Your task to perform on an android device: turn on data saver in the chrome app Image 0: 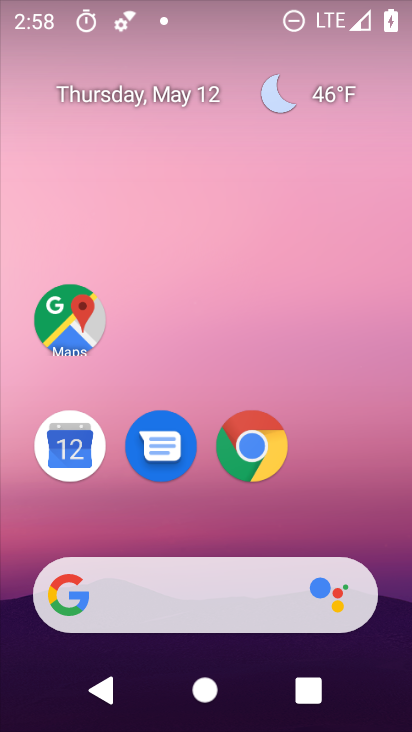
Step 0: click (231, 461)
Your task to perform on an android device: turn on data saver in the chrome app Image 1: 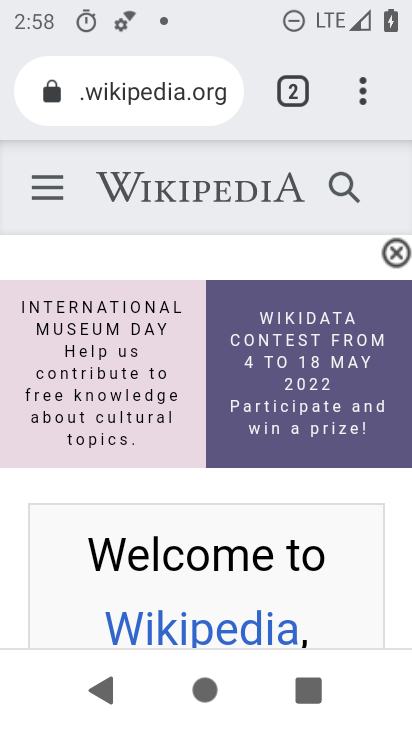
Step 1: drag from (375, 83) to (167, 471)
Your task to perform on an android device: turn on data saver in the chrome app Image 2: 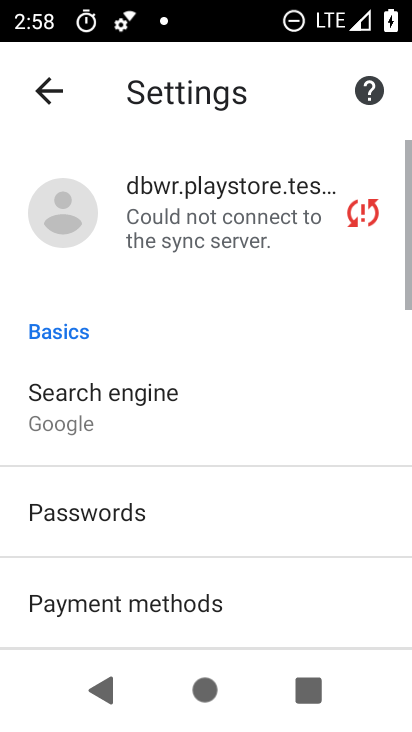
Step 2: drag from (199, 466) to (257, 183)
Your task to perform on an android device: turn on data saver in the chrome app Image 3: 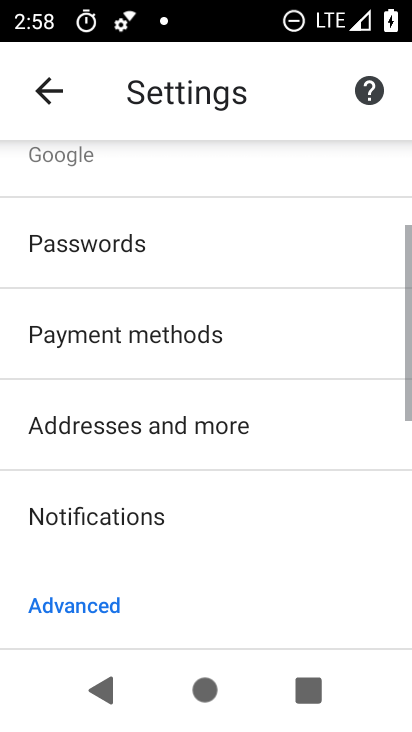
Step 3: drag from (272, 468) to (299, 228)
Your task to perform on an android device: turn on data saver in the chrome app Image 4: 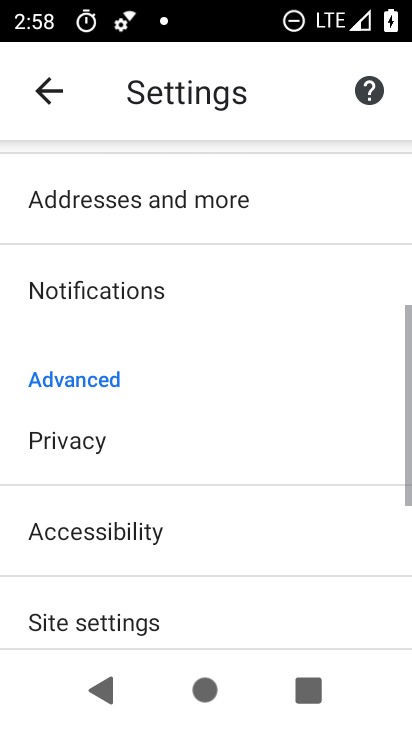
Step 4: drag from (237, 516) to (293, 307)
Your task to perform on an android device: turn on data saver in the chrome app Image 5: 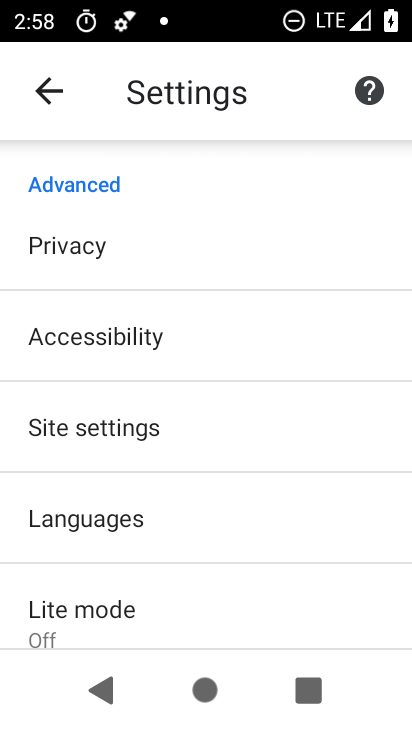
Step 5: drag from (140, 555) to (176, 456)
Your task to perform on an android device: turn on data saver in the chrome app Image 6: 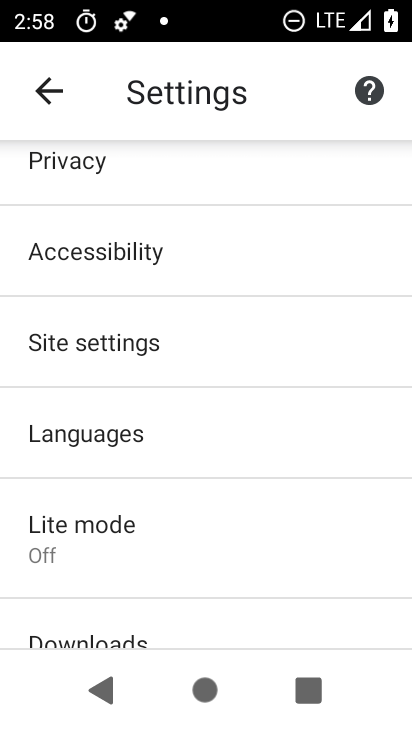
Step 6: click (176, 508)
Your task to perform on an android device: turn on data saver in the chrome app Image 7: 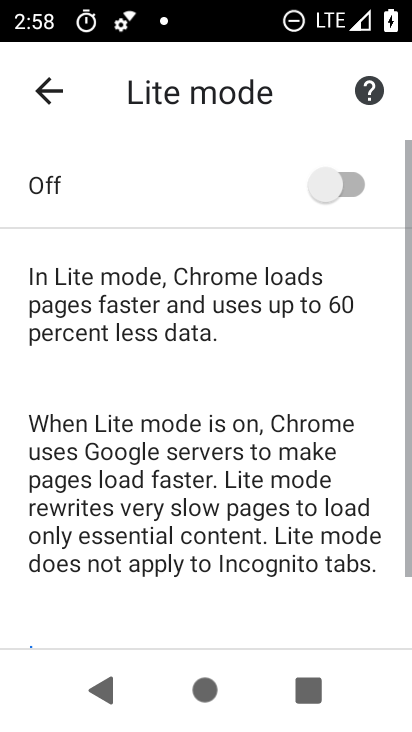
Step 7: click (356, 184)
Your task to perform on an android device: turn on data saver in the chrome app Image 8: 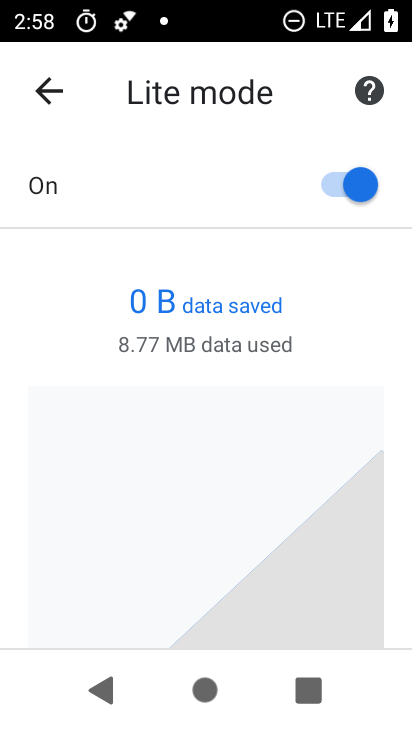
Step 8: task complete